Your task to perform on an android device: set an alarm Image 0: 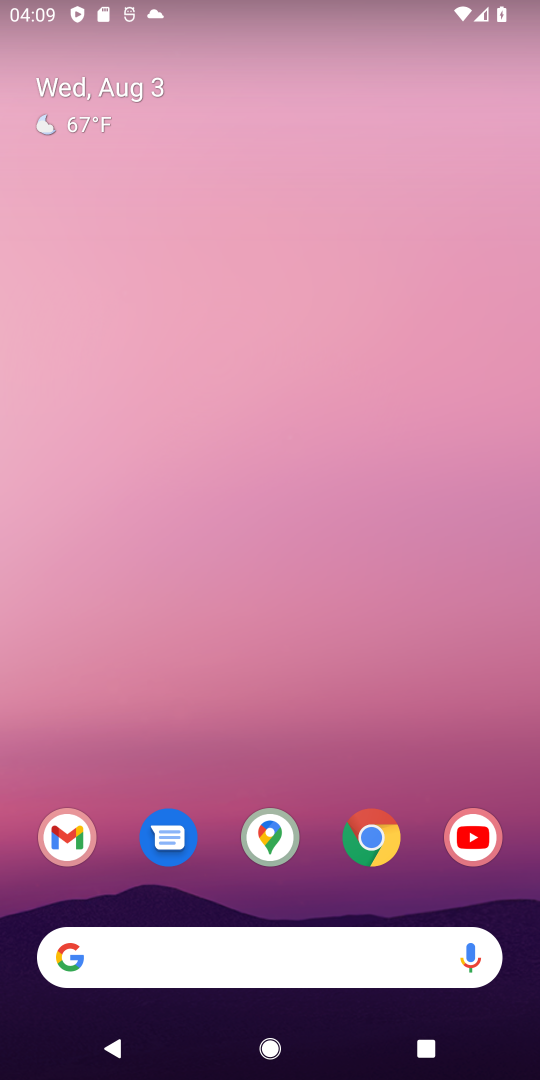
Step 0: drag from (428, 873) to (412, 188)
Your task to perform on an android device: set an alarm Image 1: 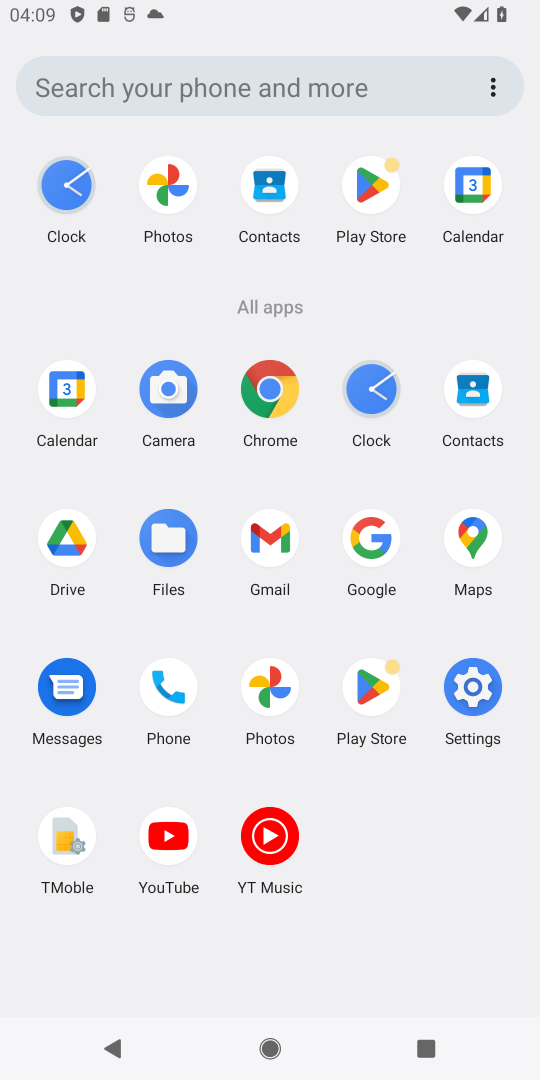
Step 1: click (374, 392)
Your task to perform on an android device: set an alarm Image 2: 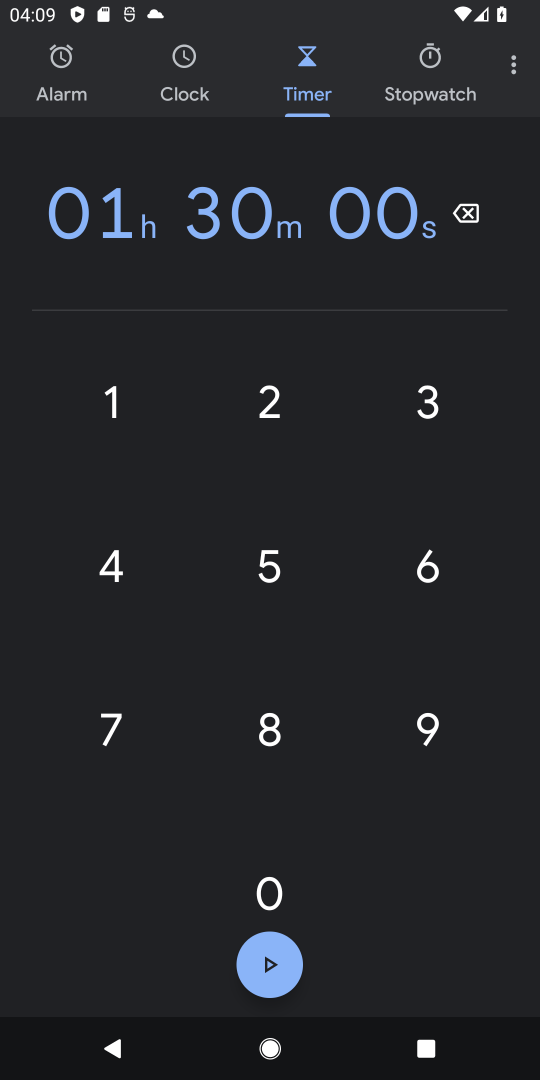
Step 2: click (61, 73)
Your task to perform on an android device: set an alarm Image 3: 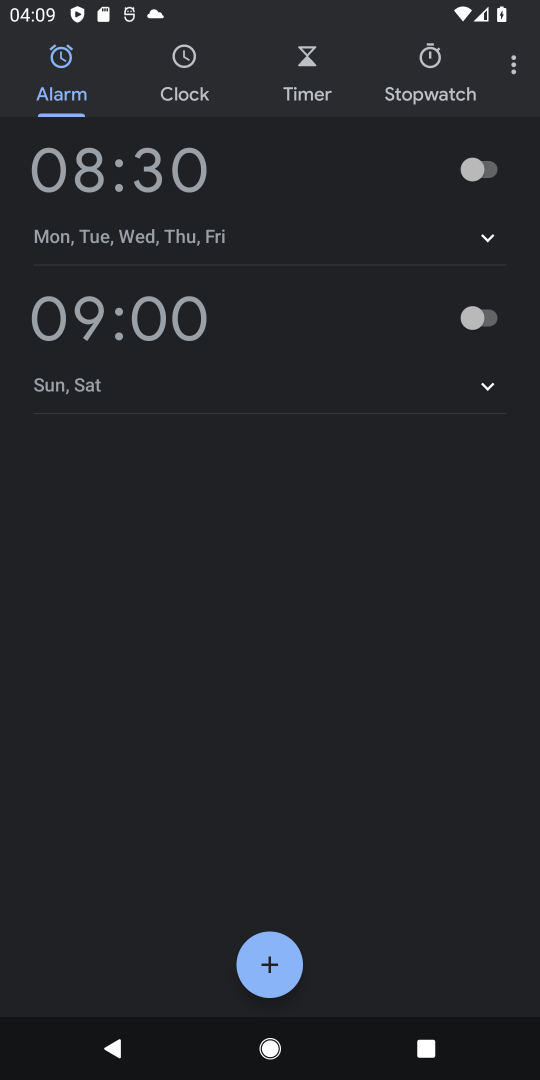
Step 3: click (87, 166)
Your task to perform on an android device: set an alarm Image 4: 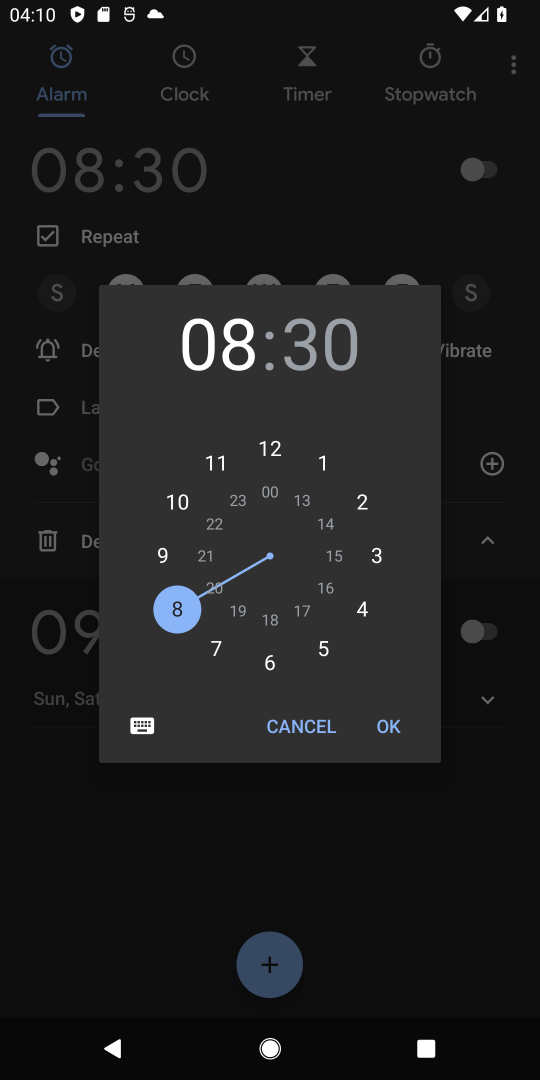
Step 4: click (321, 647)
Your task to perform on an android device: set an alarm Image 5: 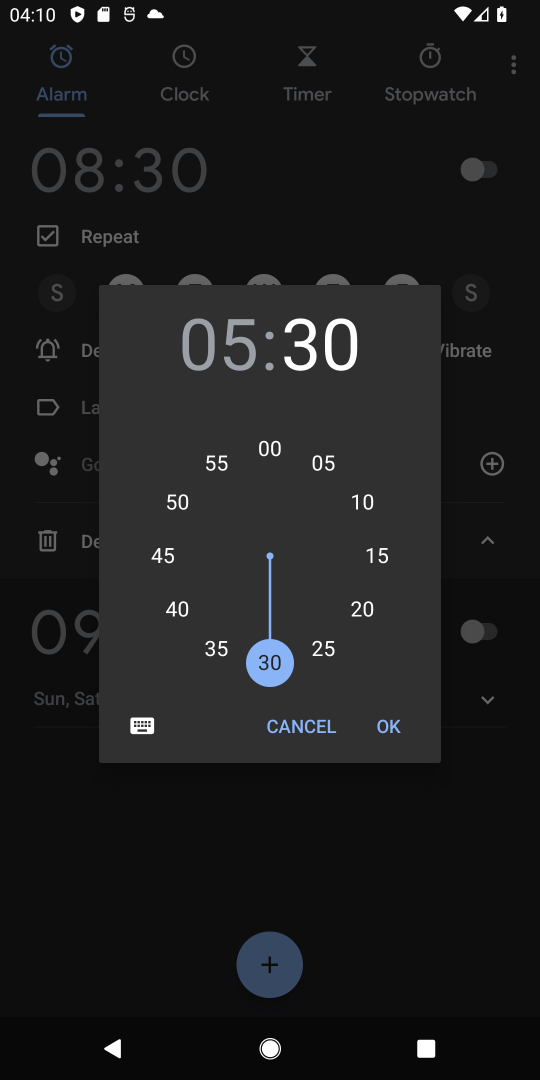
Step 5: click (390, 730)
Your task to perform on an android device: set an alarm Image 6: 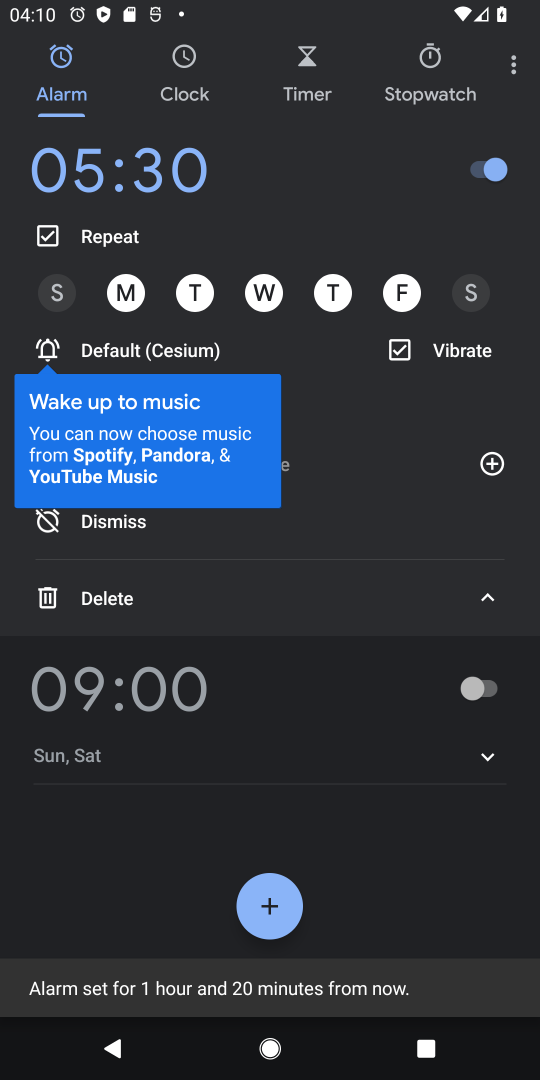
Step 6: click (469, 298)
Your task to perform on an android device: set an alarm Image 7: 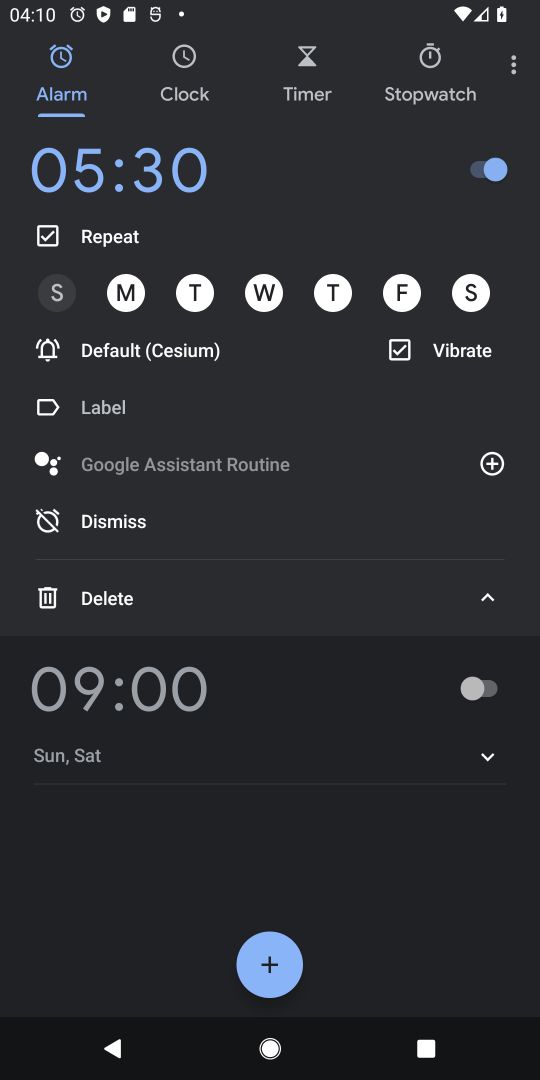
Step 7: click (488, 593)
Your task to perform on an android device: set an alarm Image 8: 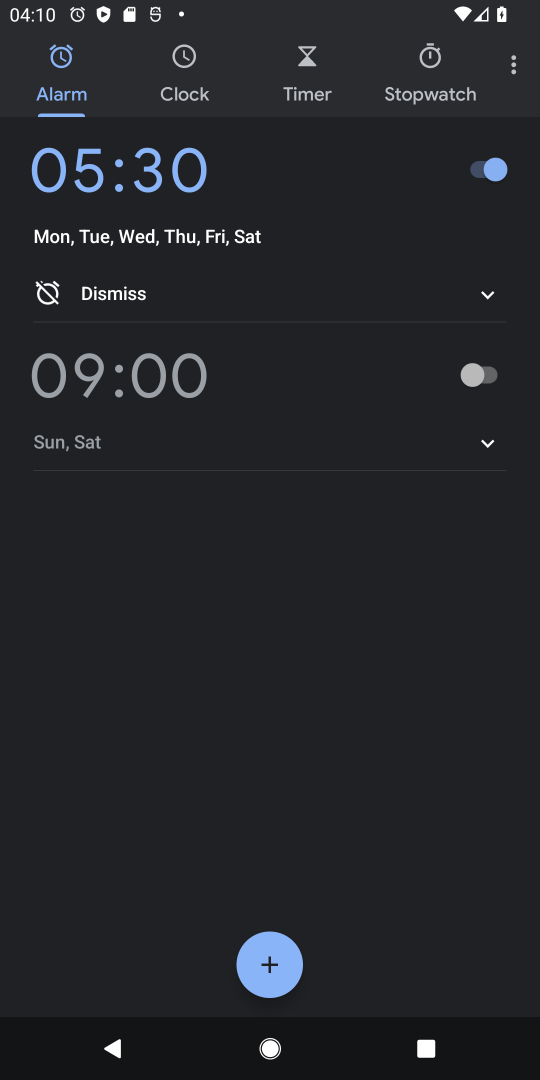
Step 8: task complete